Your task to perform on an android device: turn off wifi Image 0: 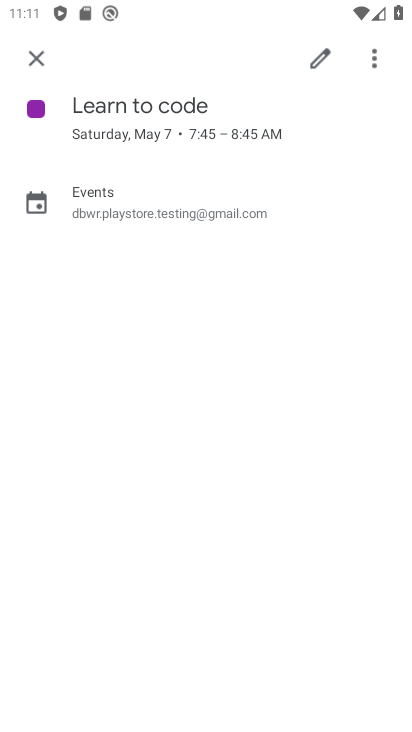
Step 0: press home button
Your task to perform on an android device: turn off wifi Image 1: 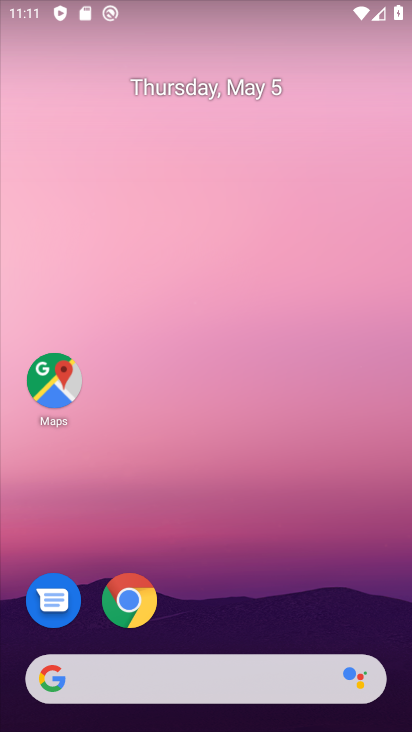
Step 1: drag from (259, 2) to (319, 533)
Your task to perform on an android device: turn off wifi Image 2: 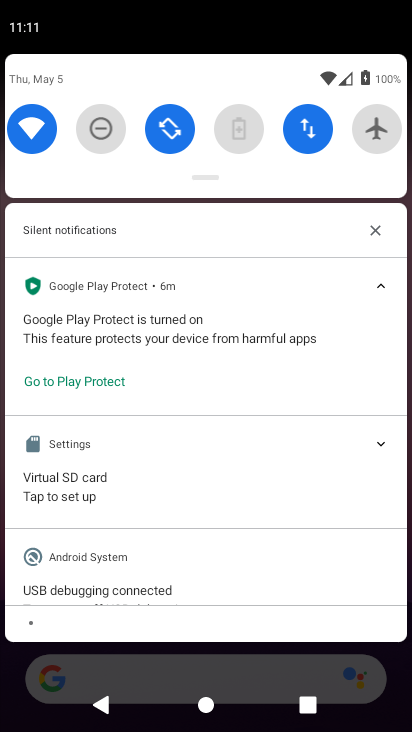
Step 2: click (33, 126)
Your task to perform on an android device: turn off wifi Image 3: 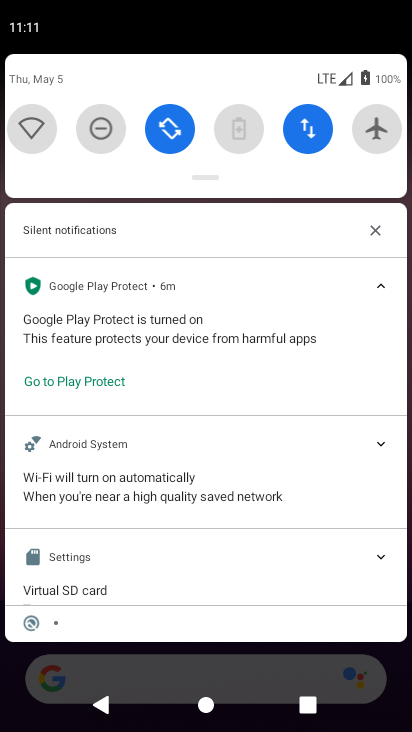
Step 3: task complete